Your task to perform on an android device: Go to sound settings Image 0: 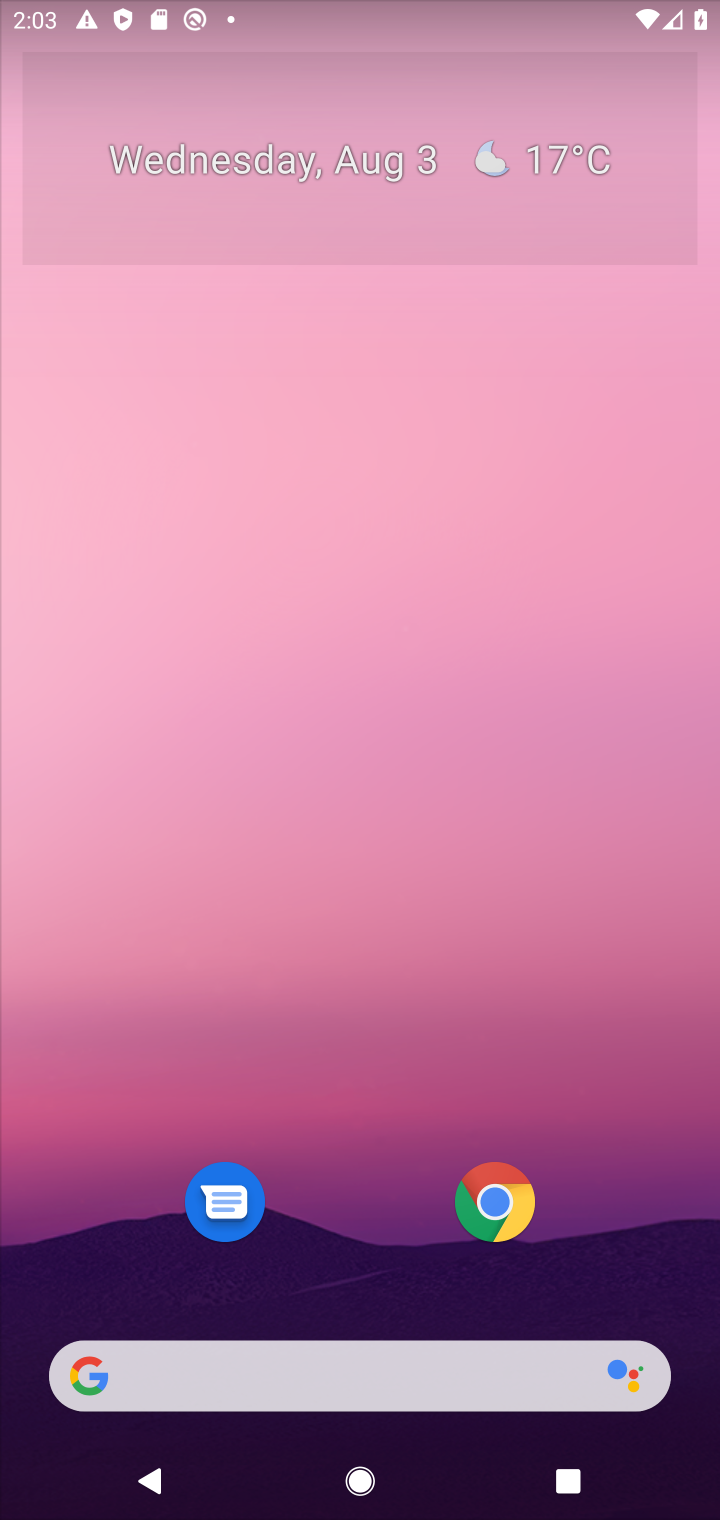
Step 0: drag from (326, 1316) to (450, 75)
Your task to perform on an android device: Go to sound settings Image 1: 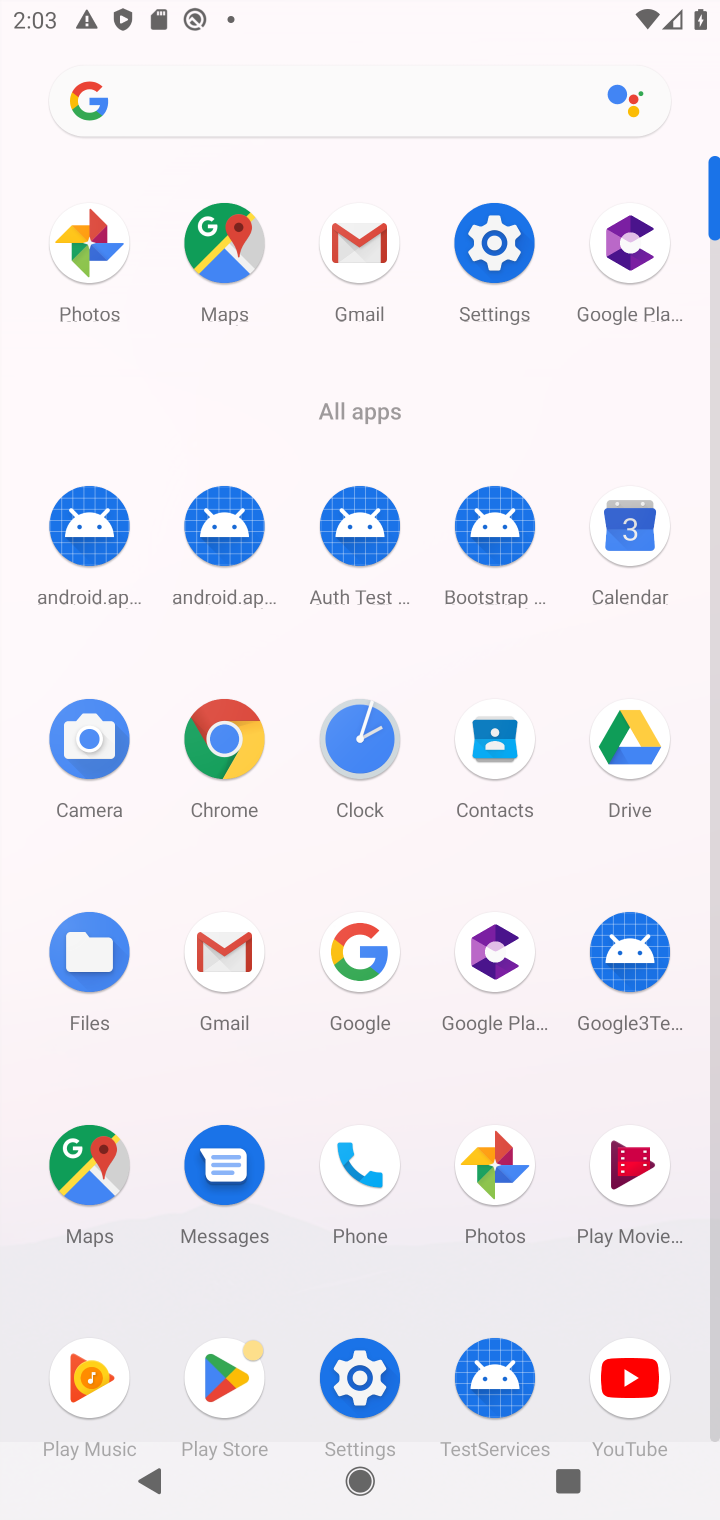
Step 1: click (492, 236)
Your task to perform on an android device: Go to sound settings Image 2: 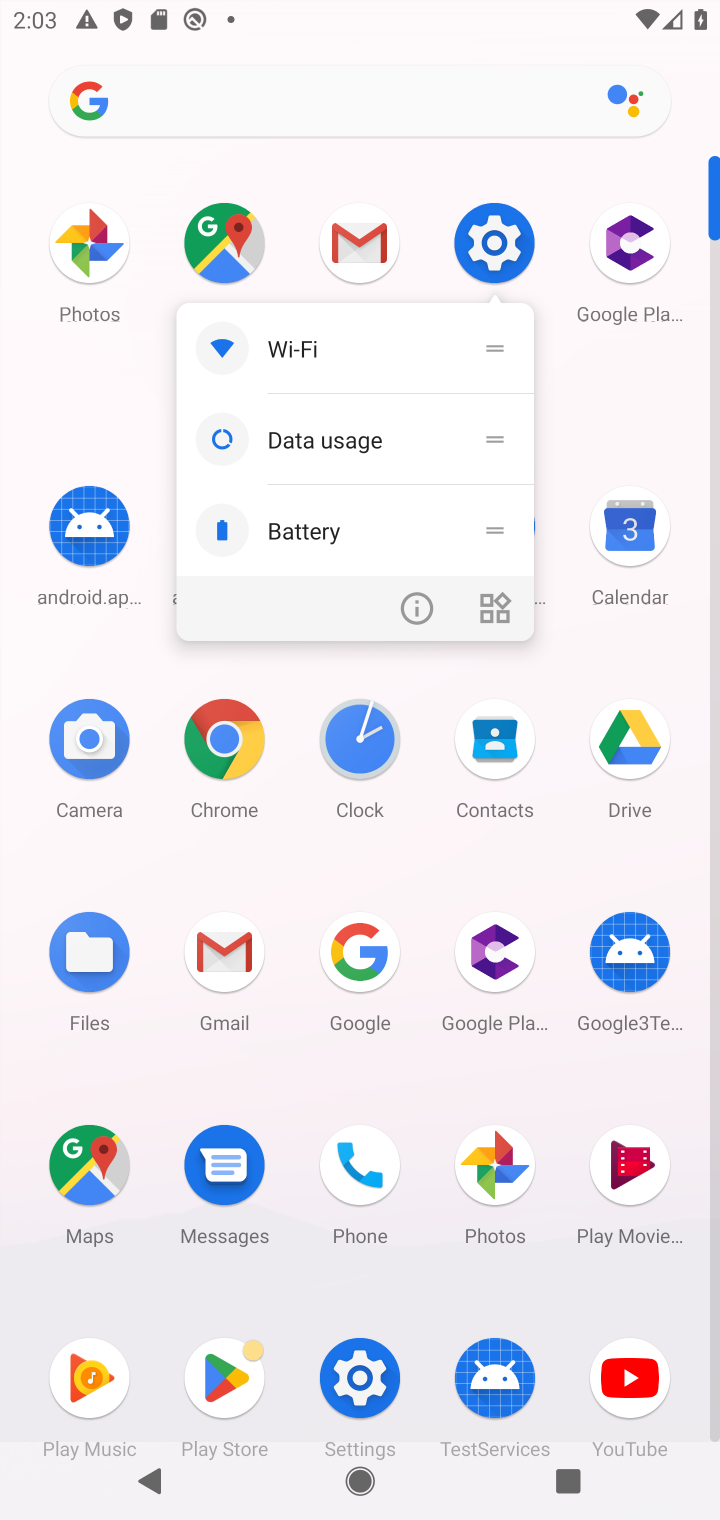
Step 2: click (492, 235)
Your task to perform on an android device: Go to sound settings Image 3: 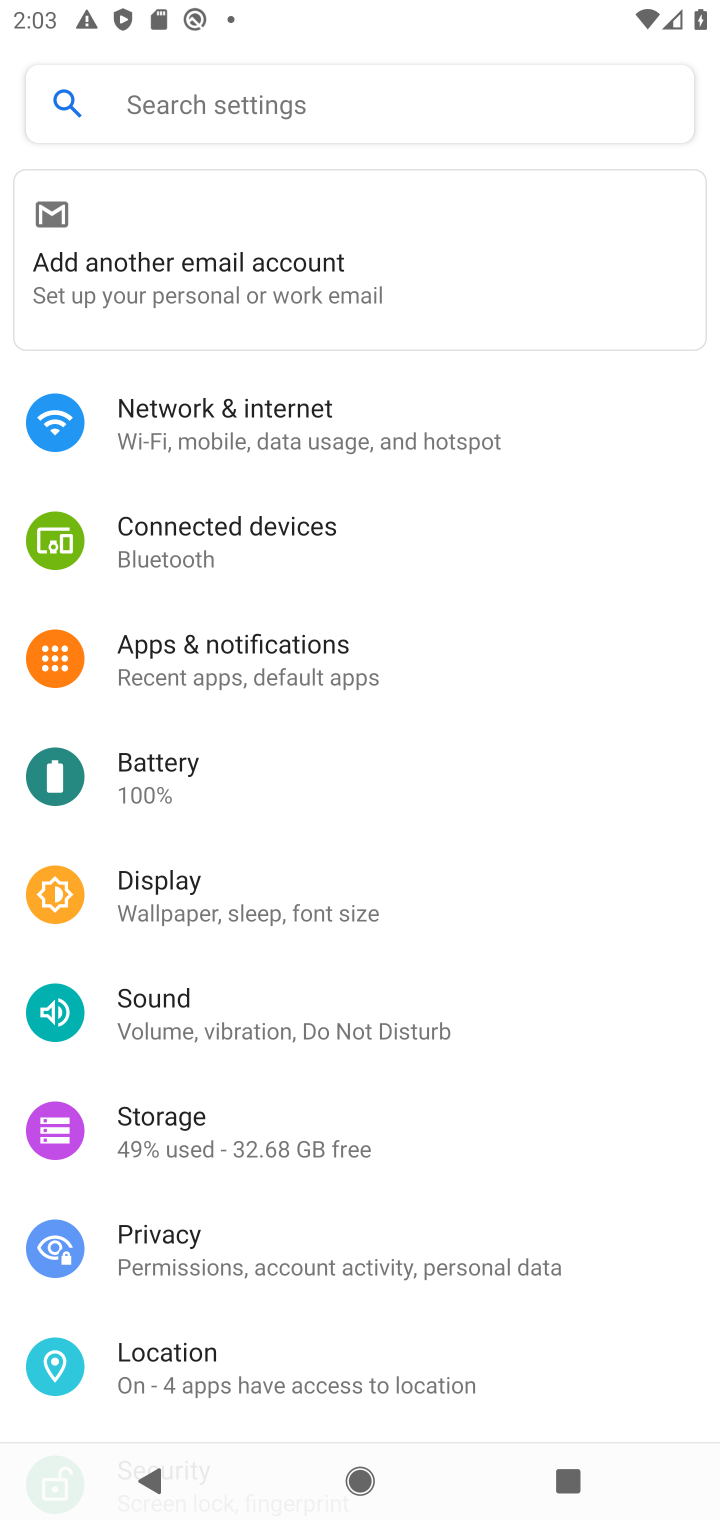
Step 3: click (279, 821)
Your task to perform on an android device: Go to sound settings Image 4: 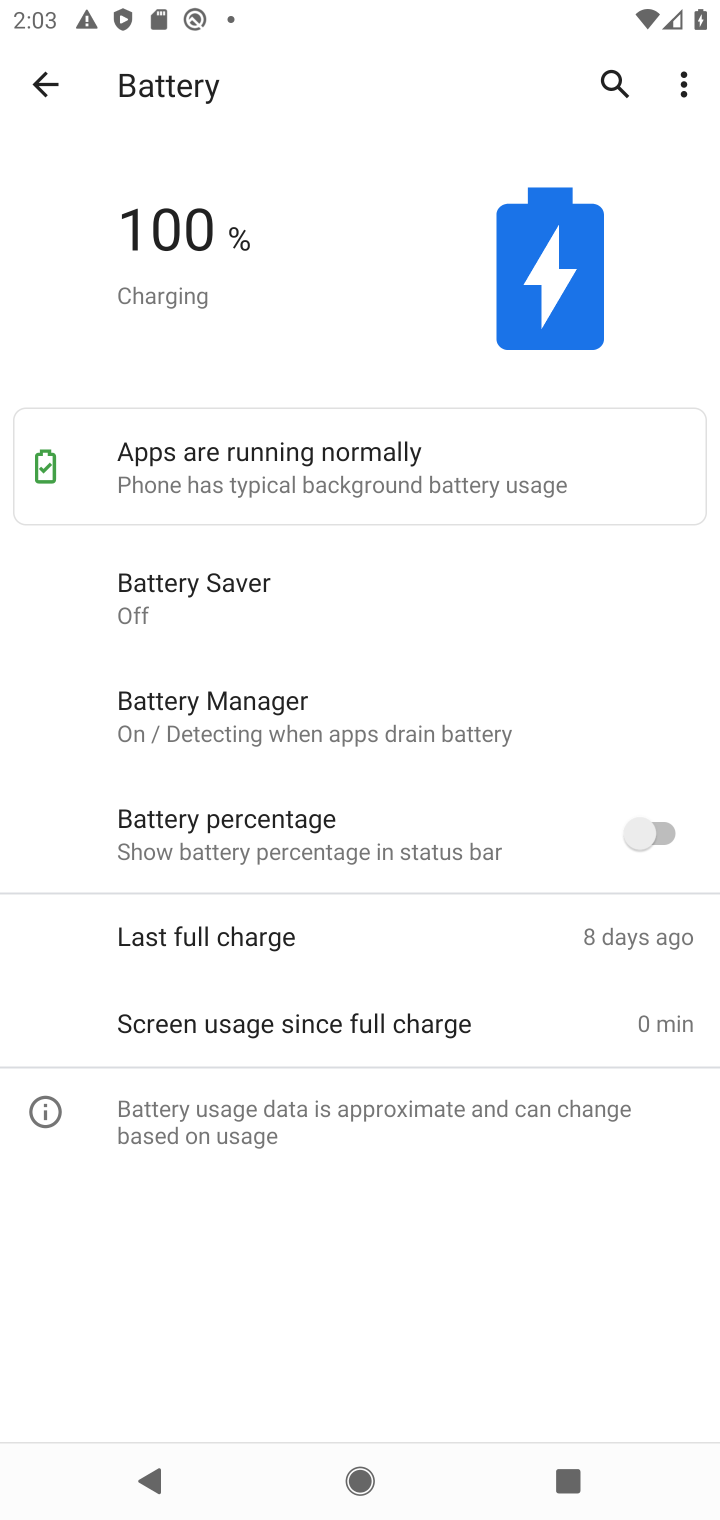
Step 4: click (45, 60)
Your task to perform on an android device: Go to sound settings Image 5: 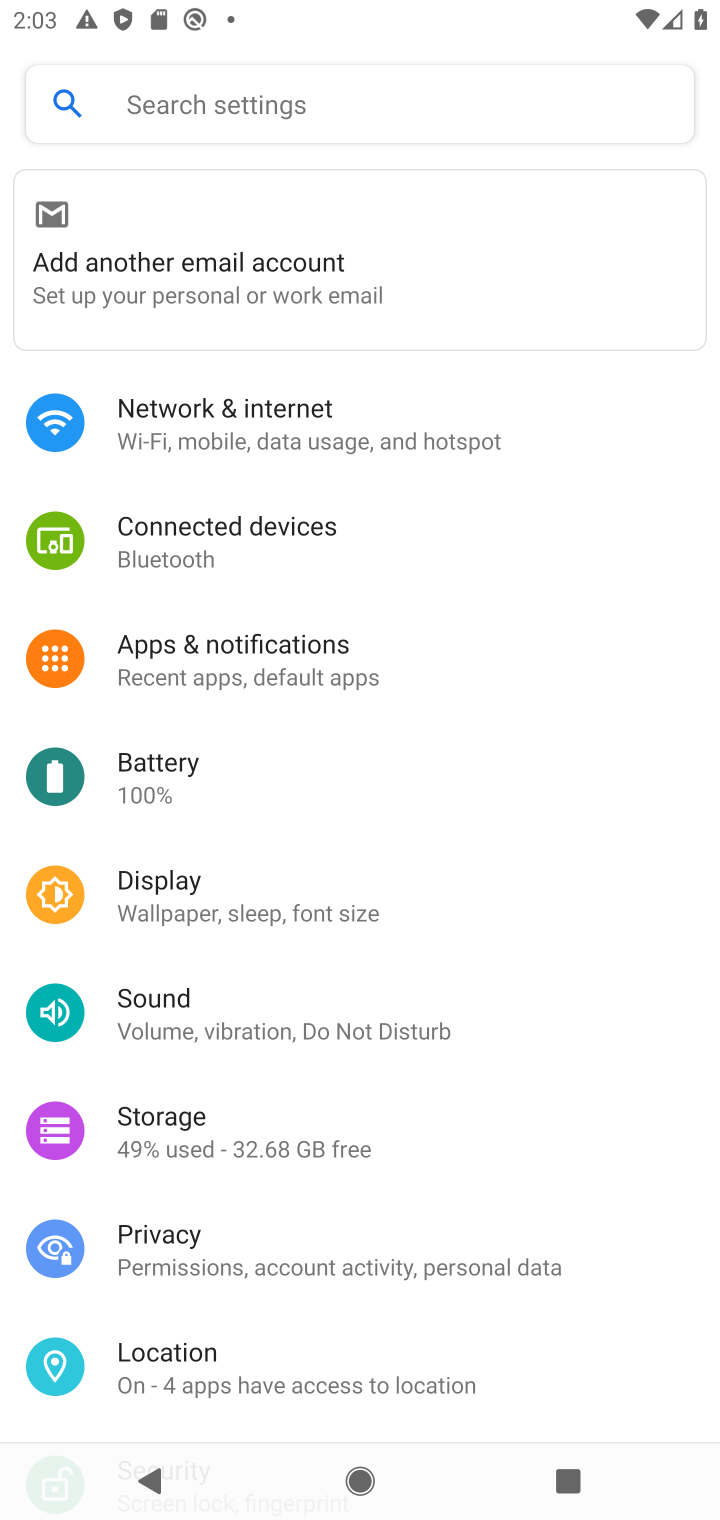
Step 5: click (162, 1027)
Your task to perform on an android device: Go to sound settings Image 6: 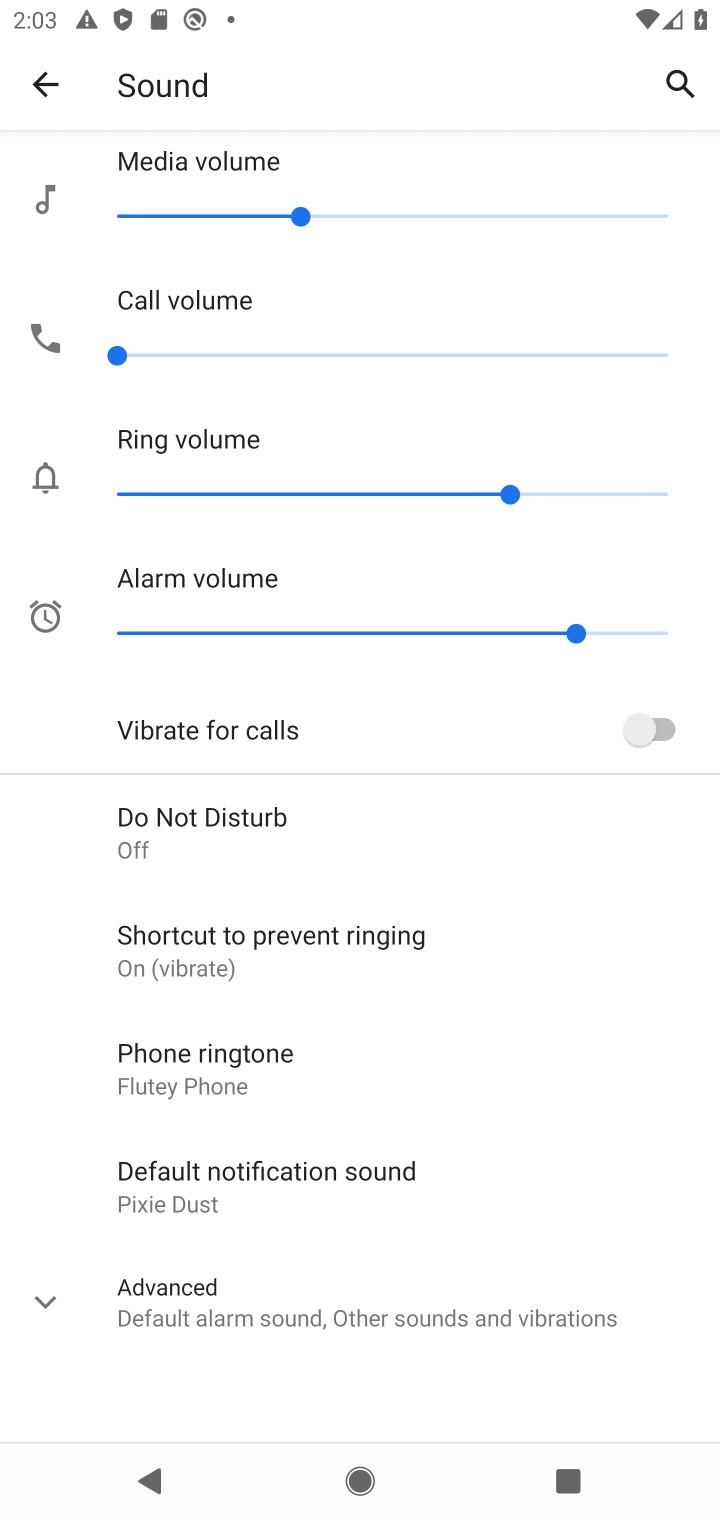
Step 6: task complete